Your task to perform on an android device: make emails show in primary in the gmail app Image 0: 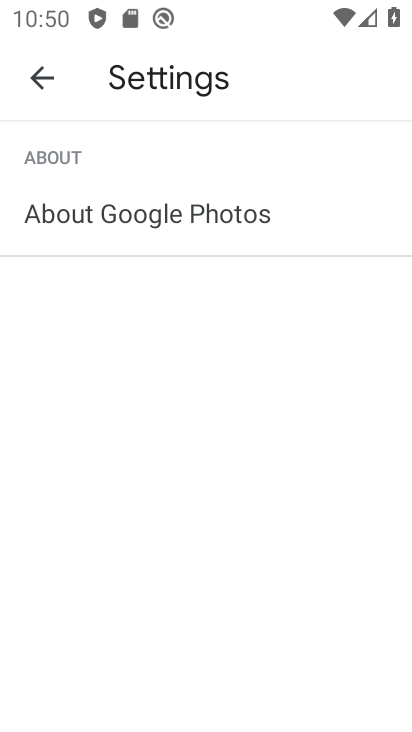
Step 0: press home button
Your task to perform on an android device: make emails show in primary in the gmail app Image 1: 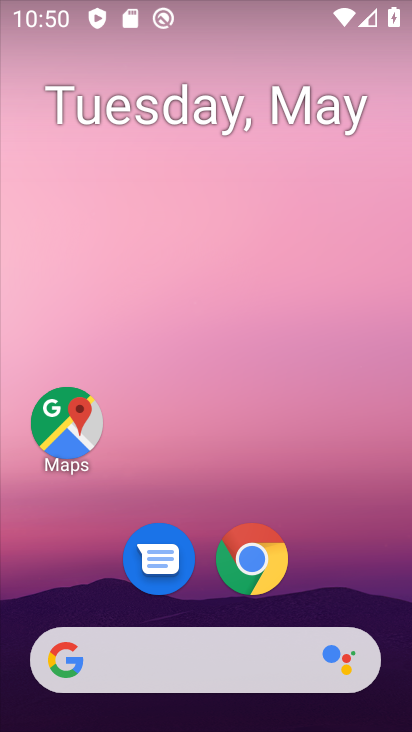
Step 1: drag from (353, 593) to (264, 213)
Your task to perform on an android device: make emails show in primary in the gmail app Image 2: 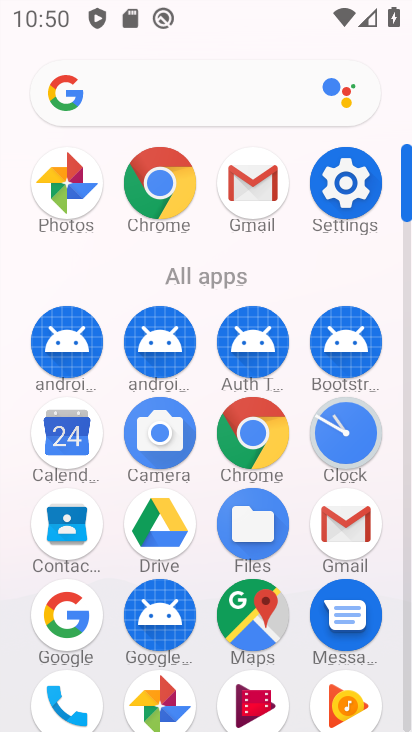
Step 2: click (266, 175)
Your task to perform on an android device: make emails show in primary in the gmail app Image 3: 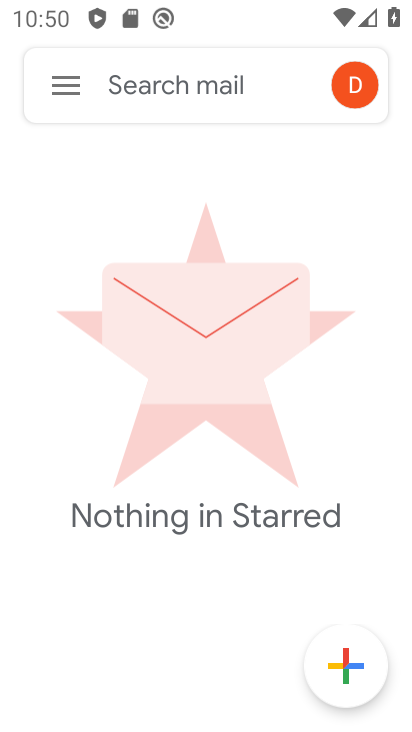
Step 3: click (76, 88)
Your task to perform on an android device: make emails show in primary in the gmail app Image 4: 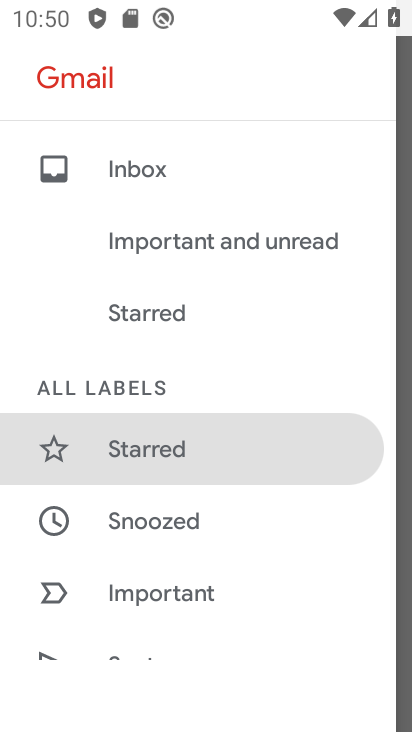
Step 4: drag from (221, 638) to (185, 142)
Your task to perform on an android device: make emails show in primary in the gmail app Image 5: 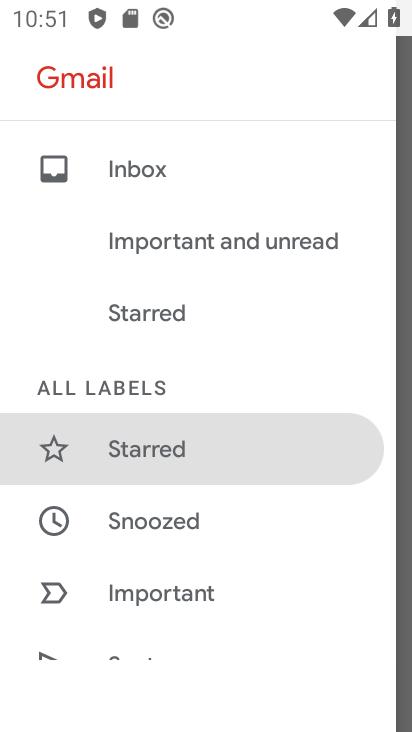
Step 5: drag from (150, 571) to (158, 143)
Your task to perform on an android device: make emails show in primary in the gmail app Image 6: 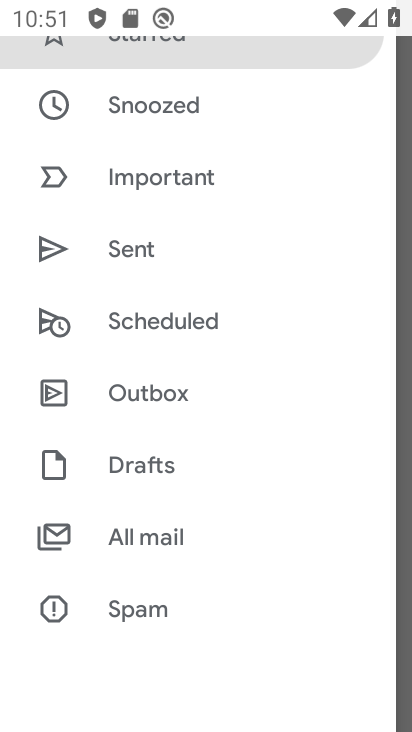
Step 6: drag from (165, 583) to (151, 97)
Your task to perform on an android device: make emails show in primary in the gmail app Image 7: 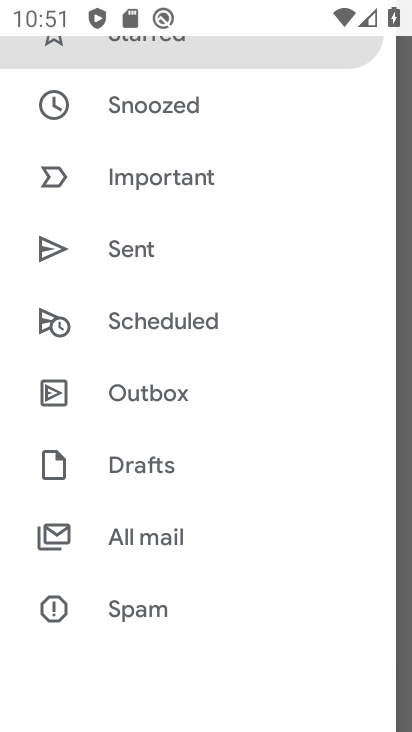
Step 7: drag from (170, 585) to (147, 96)
Your task to perform on an android device: make emails show in primary in the gmail app Image 8: 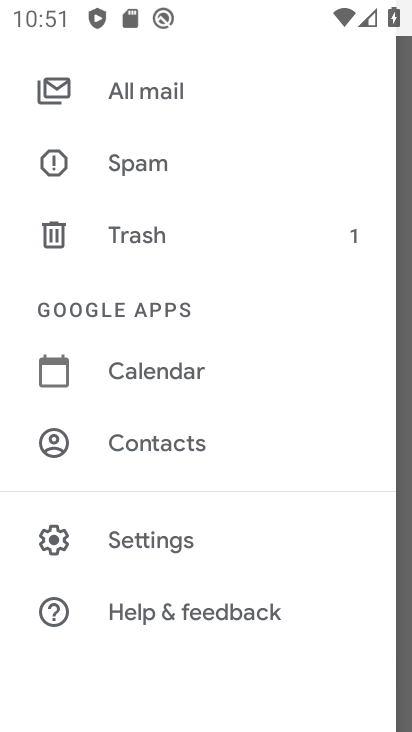
Step 8: click (154, 520)
Your task to perform on an android device: make emails show in primary in the gmail app Image 9: 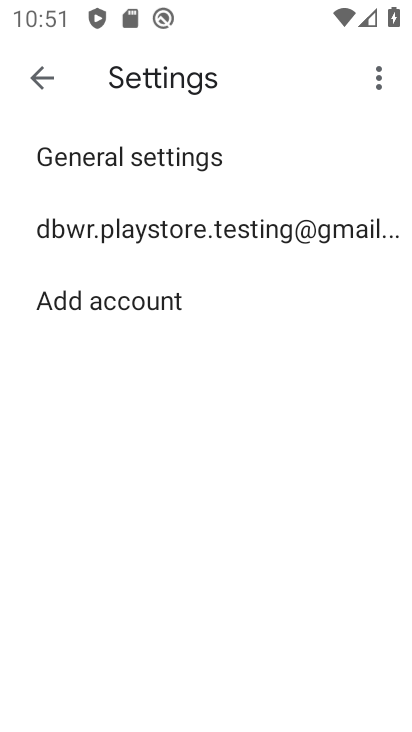
Step 9: click (198, 219)
Your task to perform on an android device: make emails show in primary in the gmail app Image 10: 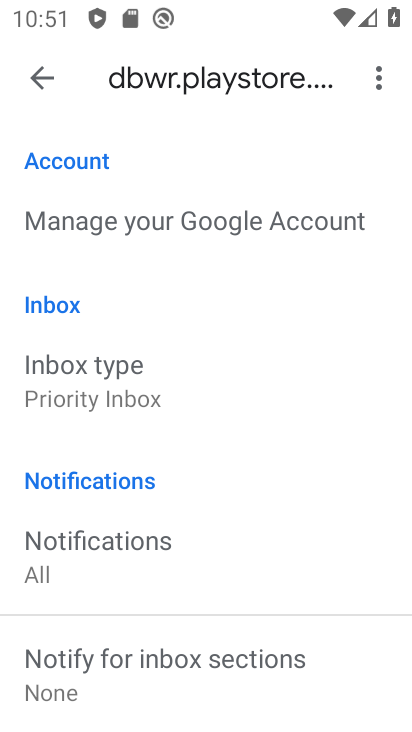
Step 10: click (161, 379)
Your task to perform on an android device: make emails show in primary in the gmail app Image 11: 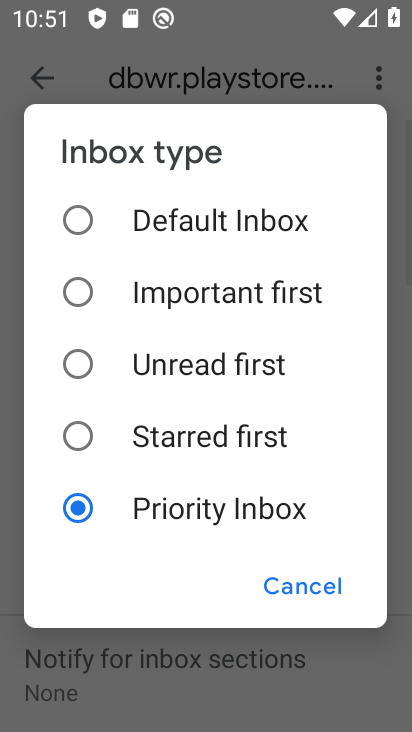
Step 11: click (156, 229)
Your task to perform on an android device: make emails show in primary in the gmail app Image 12: 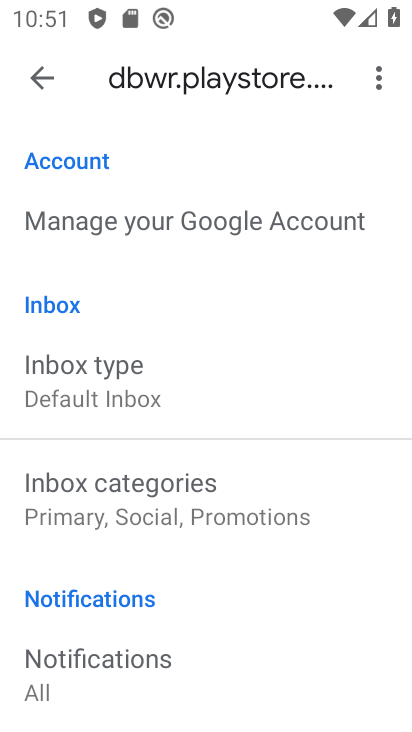
Step 12: task complete